Your task to perform on an android device: turn off smart reply in the gmail app Image 0: 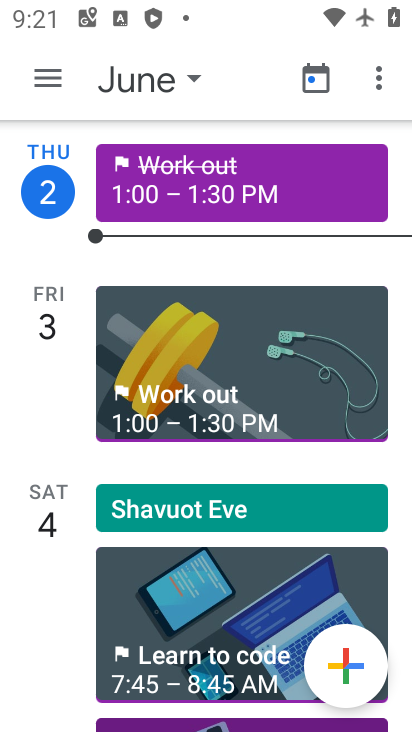
Step 0: press home button
Your task to perform on an android device: turn off smart reply in the gmail app Image 1: 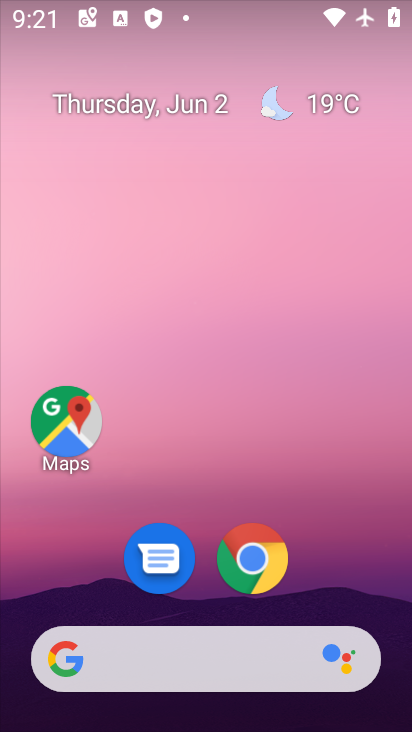
Step 1: drag from (381, 602) to (305, 105)
Your task to perform on an android device: turn off smart reply in the gmail app Image 2: 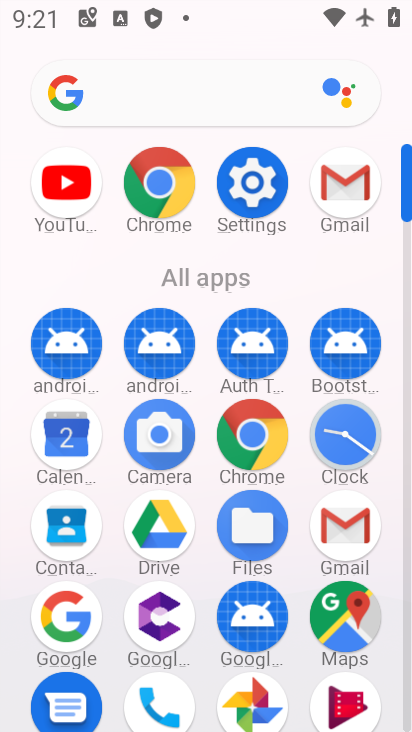
Step 2: click (411, 668)
Your task to perform on an android device: turn off smart reply in the gmail app Image 3: 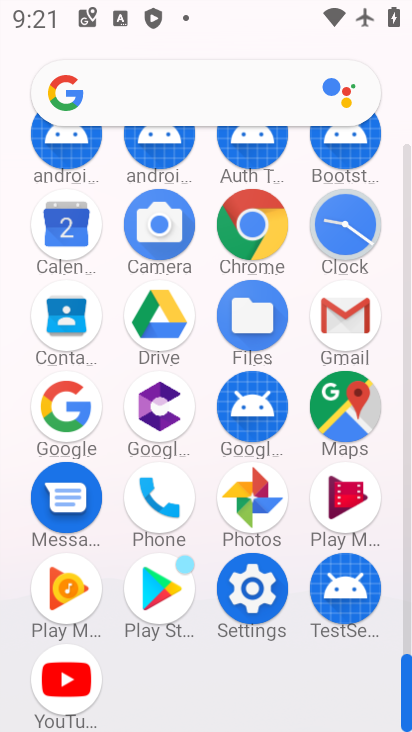
Step 3: click (343, 316)
Your task to perform on an android device: turn off smart reply in the gmail app Image 4: 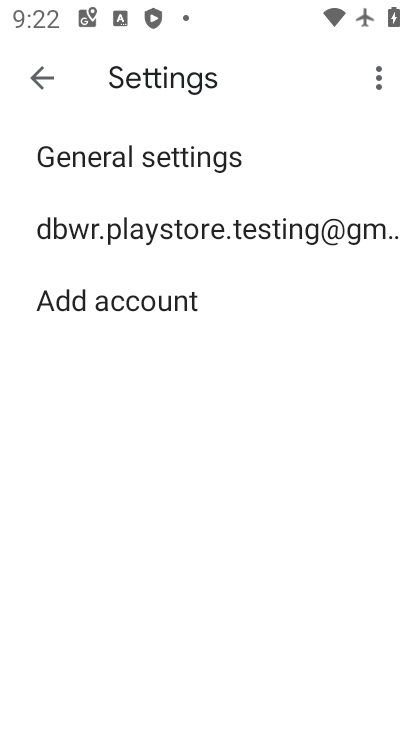
Step 4: click (145, 222)
Your task to perform on an android device: turn off smart reply in the gmail app Image 5: 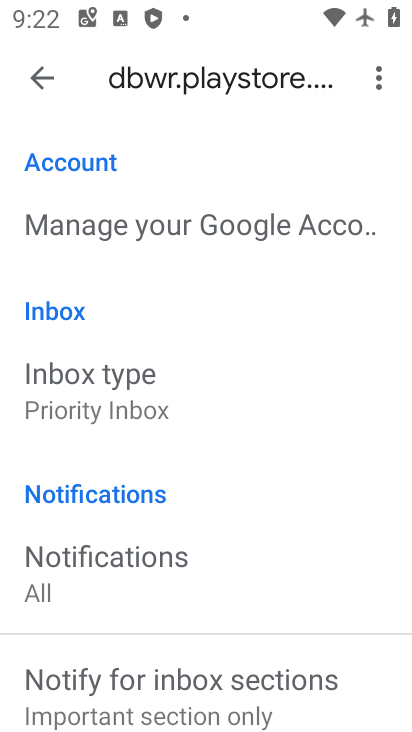
Step 5: task complete